Your task to perform on an android device: See recent photos Image 0: 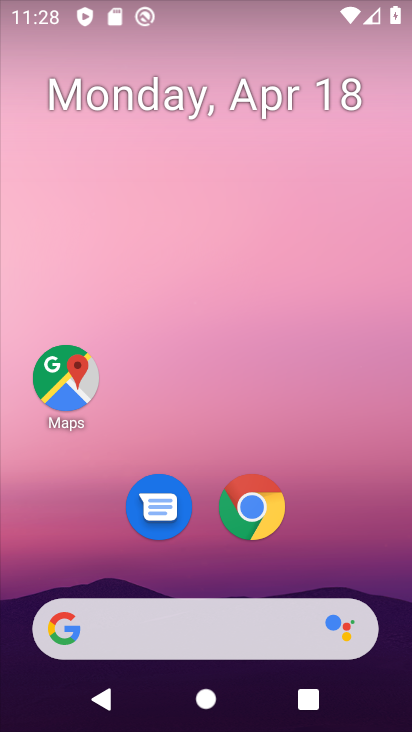
Step 0: drag from (341, 496) to (323, 134)
Your task to perform on an android device: See recent photos Image 1: 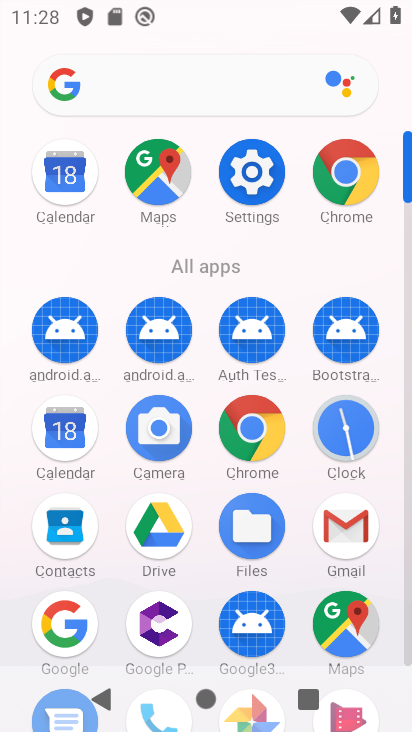
Step 1: drag from (304, 554) to (324, 203)
Your task to perform on an android device: See recent photos Image 2: 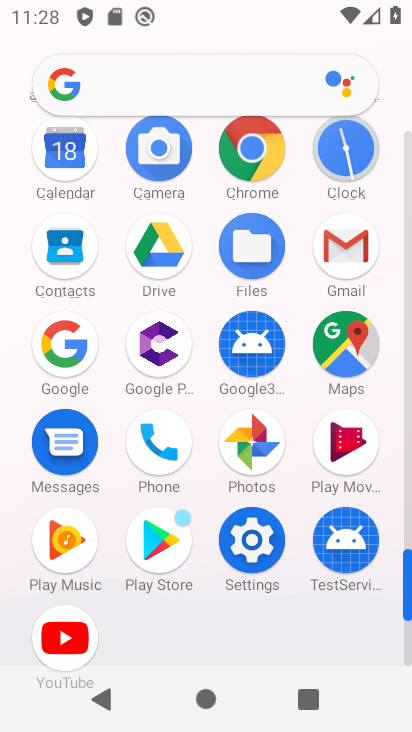
Step 2: click (261, 456)
Your task to perform on an android device: See recent photos Image 3: 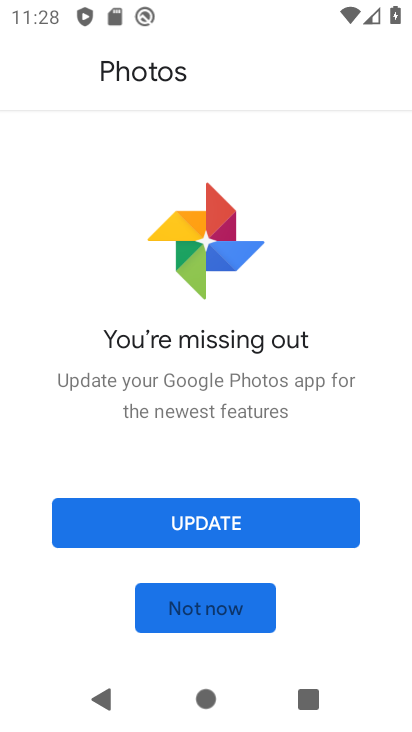
Step 3: click (244, 529)
Your task to perform on an android device: See recent photos Image 4: 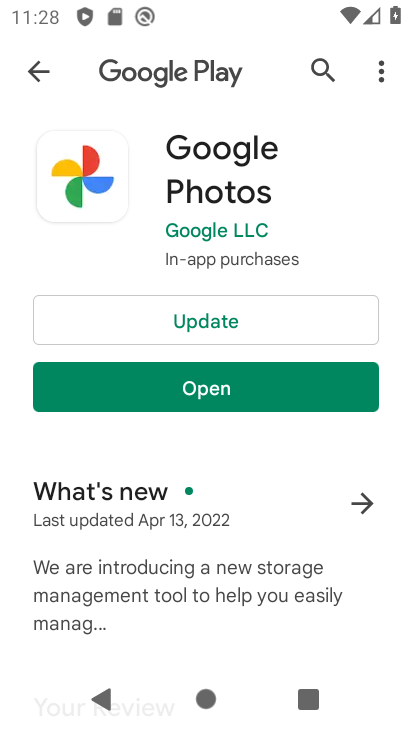
Step 4: click (166, 320)
Your task to perform on an android device: See recent photos Image 5: 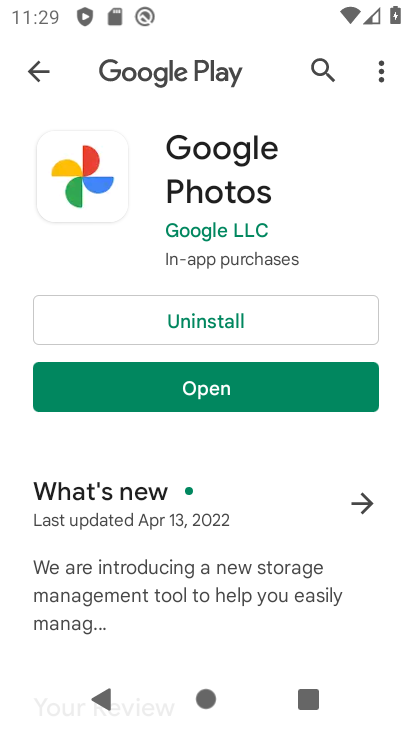
Step 5: click (215, 387)
Your task to perform on an android device: See recent photos Image 6: 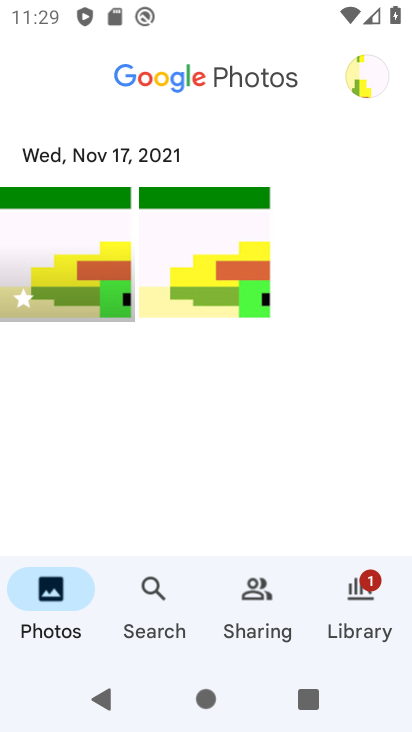
Step 6: task complete